Your task to perform on an android device: change the upload size in google photos Image 0: 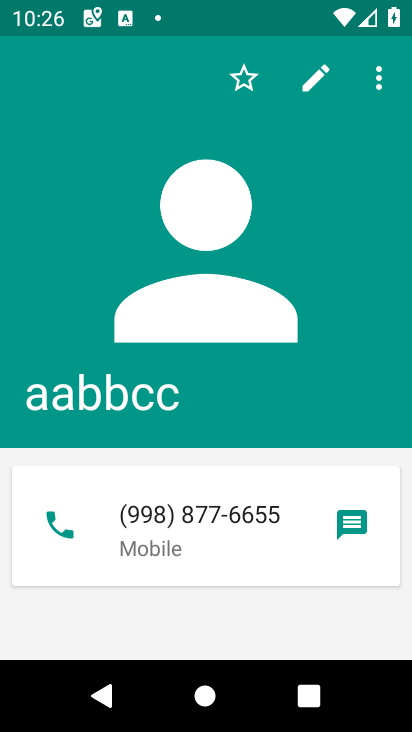
Step 0: press home button
Your task to perform on an android device: change the upload size in google photos Image 1: 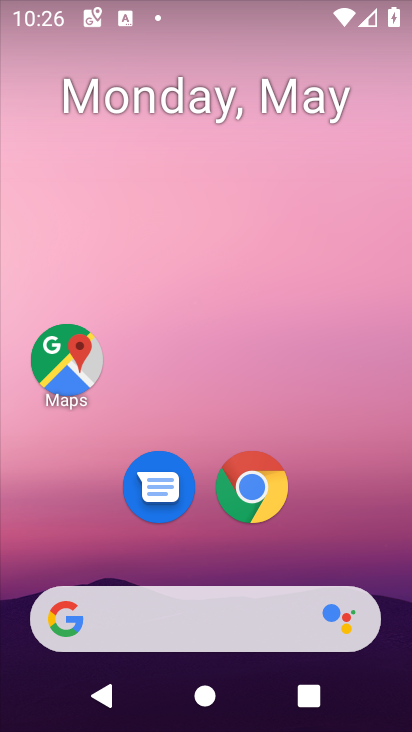
Step 1: drag from (203, 534) to (196, 10)
Your task to perform on an android device: change the upload size in google photos Image 2: 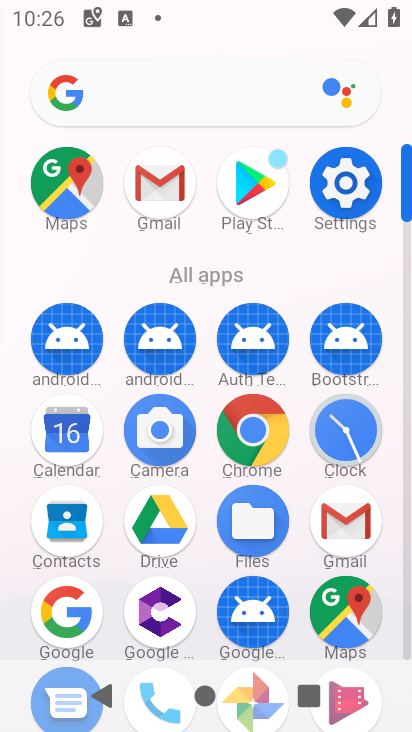
Step 2: drag from (292, 590) to (315, 190)
Your task to perform on an android device: change the upload size in google photos Image 3: 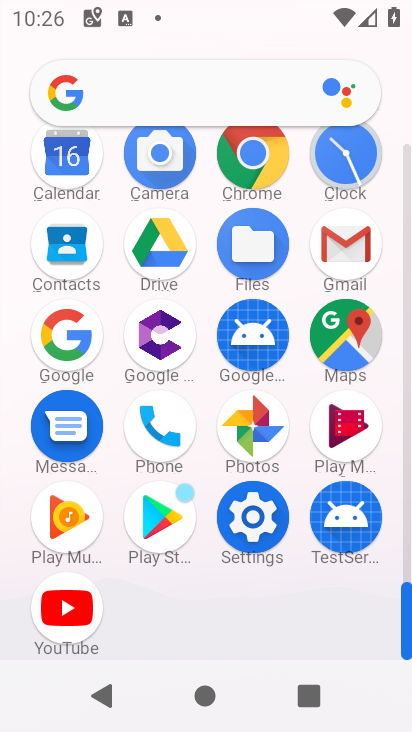
Step 3: click (256, 445)
Your task to perform on an android device: change the upload size in google photos Image 4: 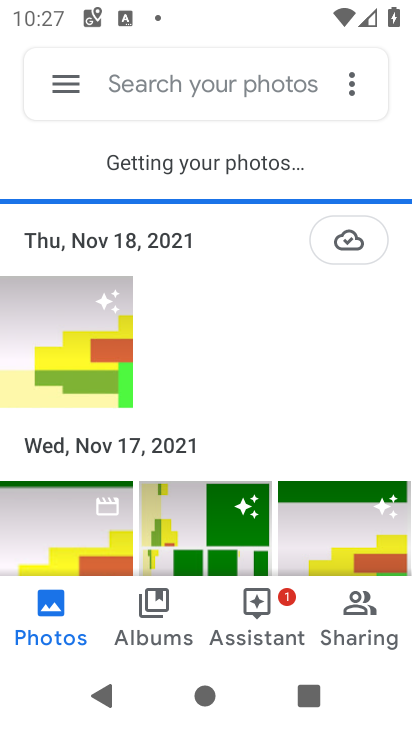
Step 4: click (83, 83)
Your task to perform on an android device: change the upload size in google photos Image 5: 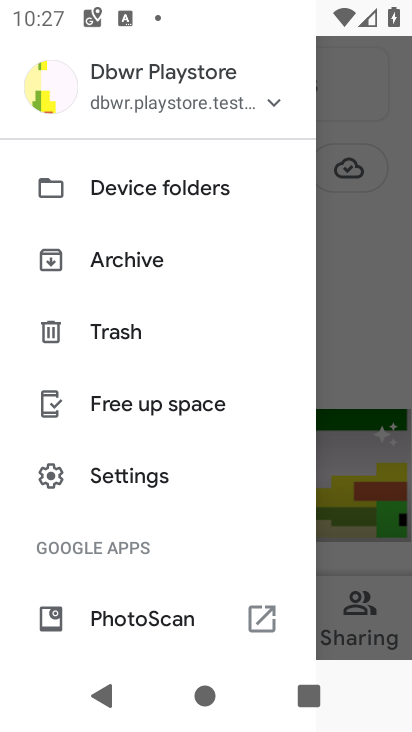
Step 5: click (98, 488)
Your task to perform on an android device: change the upload size in google photos Image 6: 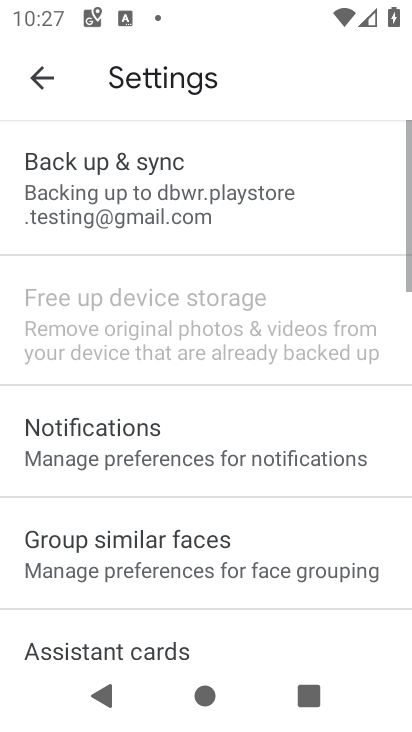
Step 6: click (197, 173)
Your task to perform on an android device: change the upload size in google photos Image 7: 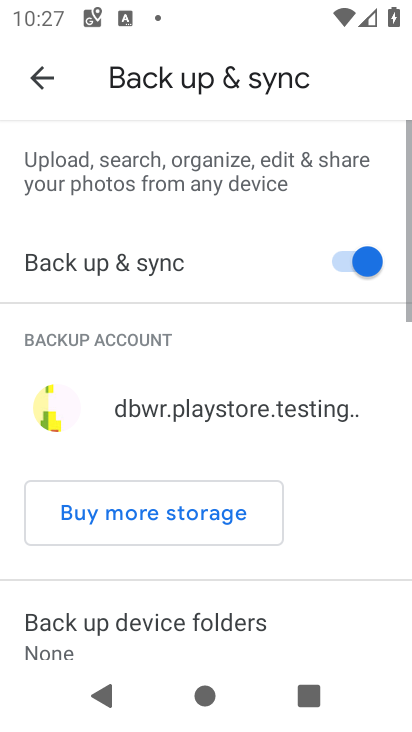
Step 7: drag from (311, 564) to (326, 146)
Your task to perform on an android device: change the upload size in google photos Image 8: 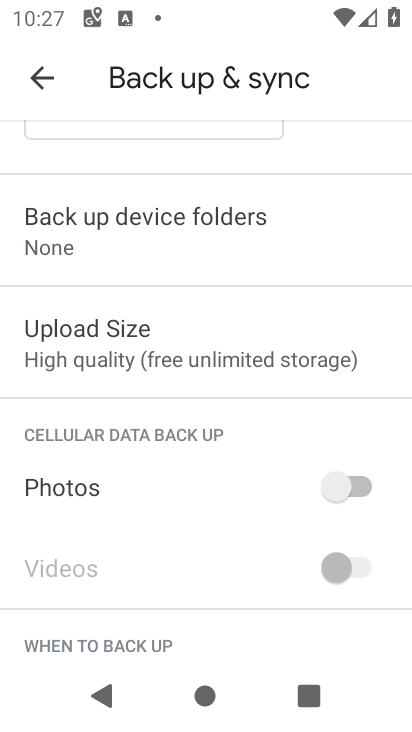
Step 8: click (275, 371)
Your task to perform on an android device: change the upload size in google photos Image 9: 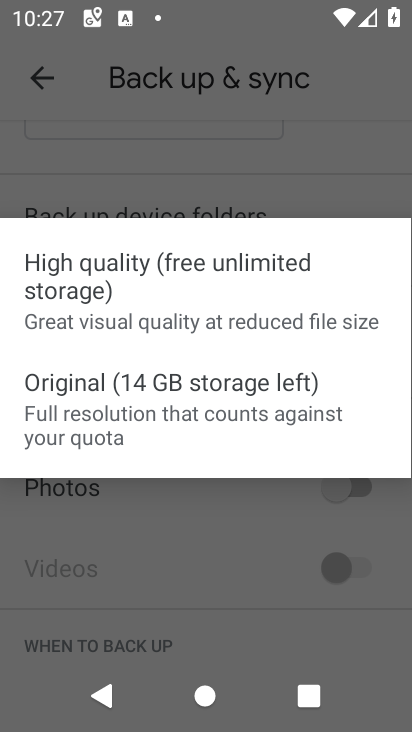
Step 9: click (248, 387)
Your task to perform on an android device: change the upload size in google photos Image 10: 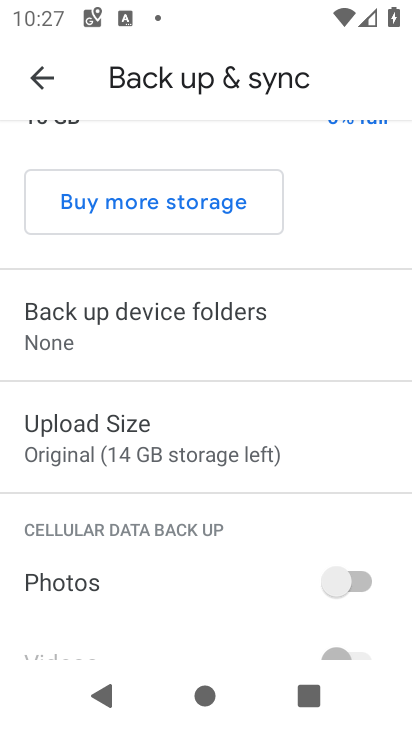
Step 10: task complete